Your task to perform on an android device: Toggle the flashlight Image 0: 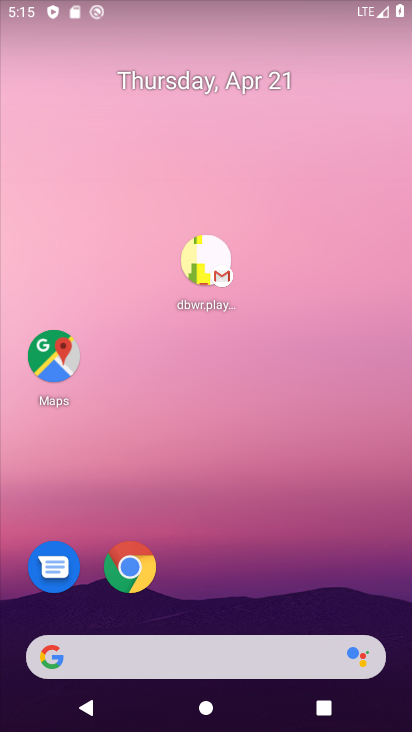
Step 0: drag from (212, 560) to (327, 14)
Your task to perform on an android device: Toggle the flashlight Image 1: 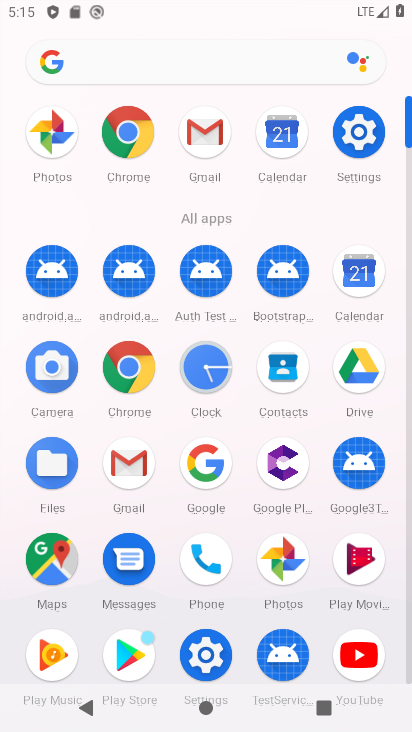
Step 1: click (368, 144)
Your task to perform on an android device: Toggle the flashlight Image 2: 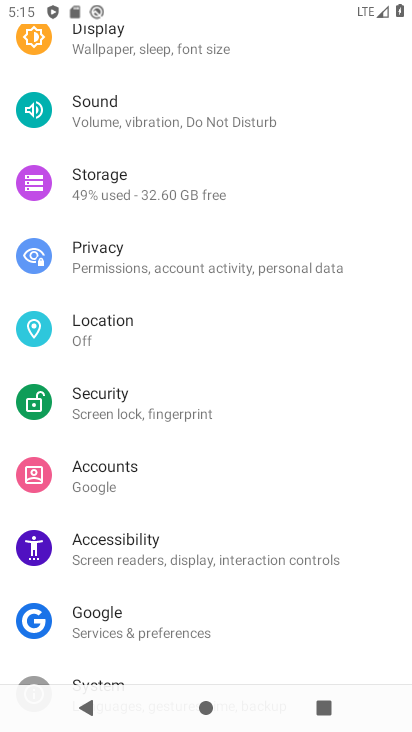
Step 2: drag from (190, 122) to (198, 554)
Your task to perform on an android device: Toggle the flashlight Image 3: 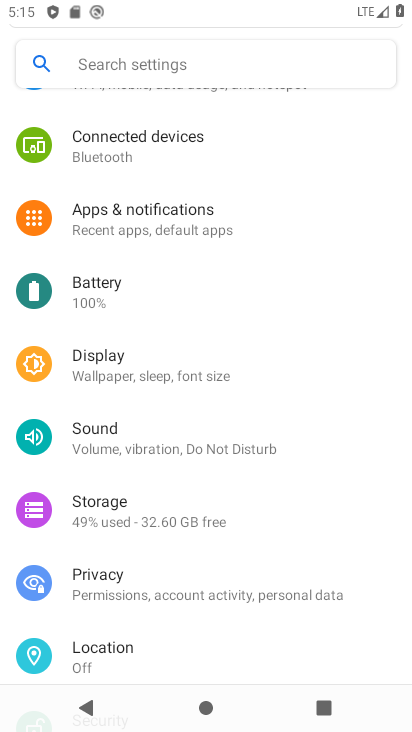
Step 3: click (206, 63)
Your task to perform on an android device: Toggle the flashlight Image 4: 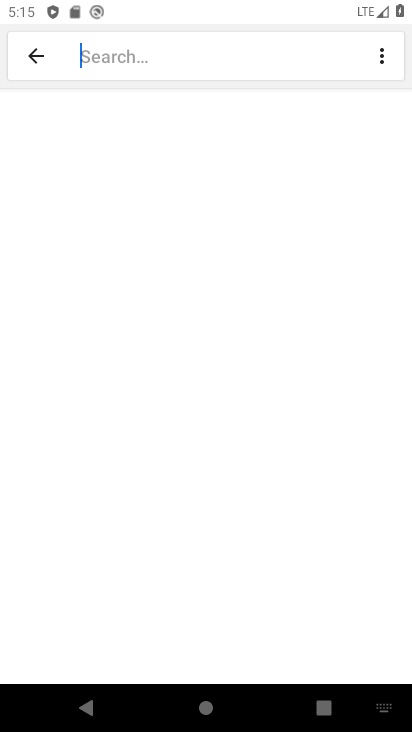
Step 4: type "flashlight"
Your task to perform on an android device: Toggle the flashlight Image 5: 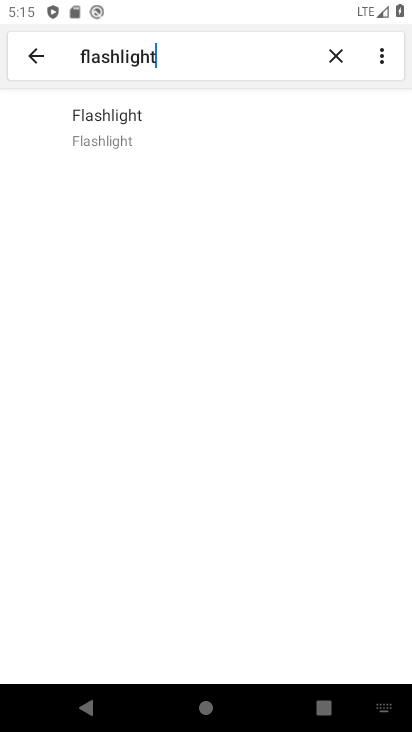
Step 5: click (102, 161)
Your task to perform on an android device: Toggle the flashlight Image 6: 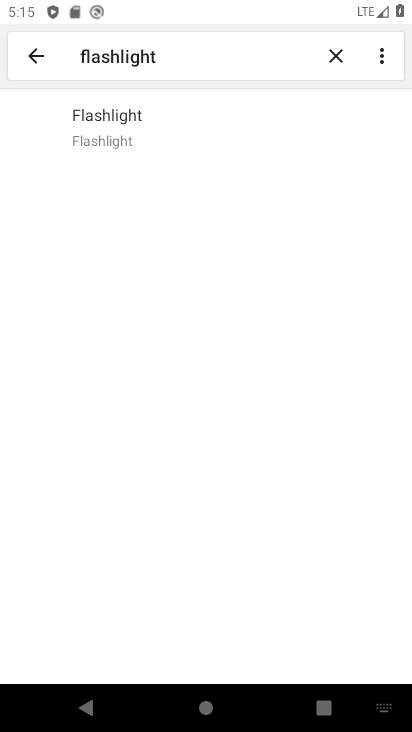
Step 6: click (135, 154)
Your task to perform on an android device: Toggle the flashlight Image 7: 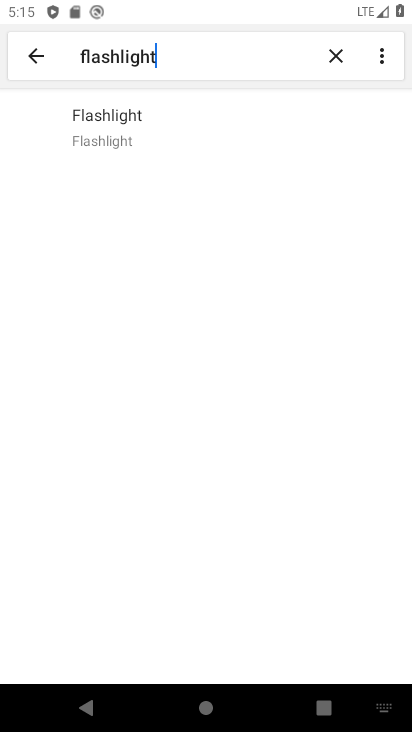
Step 7: click (134, 133)
Your task to perform on an android device: Toggle the flashlight Image 8: 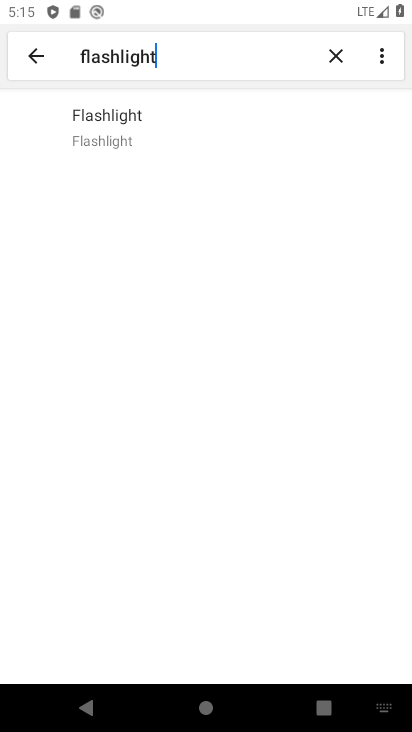
Step 8: task complete